Your task to perform on an android device: Open the stopwatch Image 0: 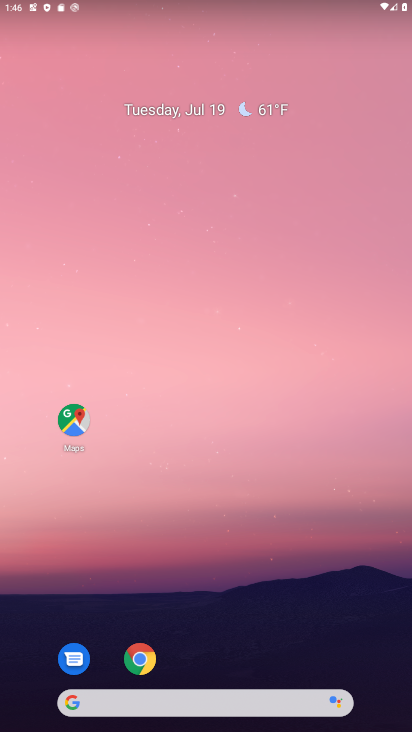
Step 0: drag from (330, 645) to (218, 85)
Your task to perform on an android device: Open the stopwatch Image 1: 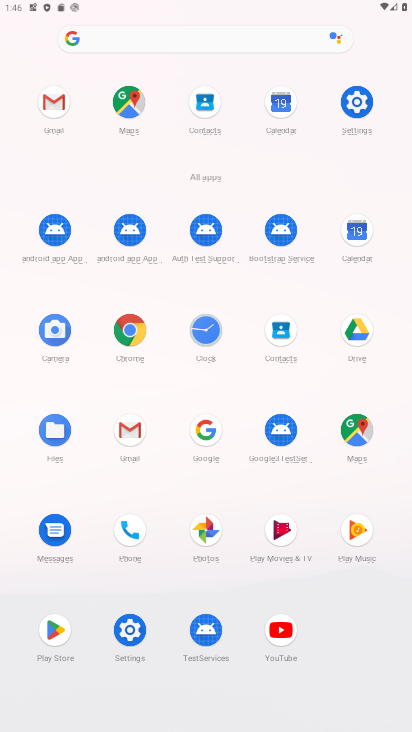
Step 1: click (207, 331)
Your task to perform on an android device: Open the stopwatch Image 2: 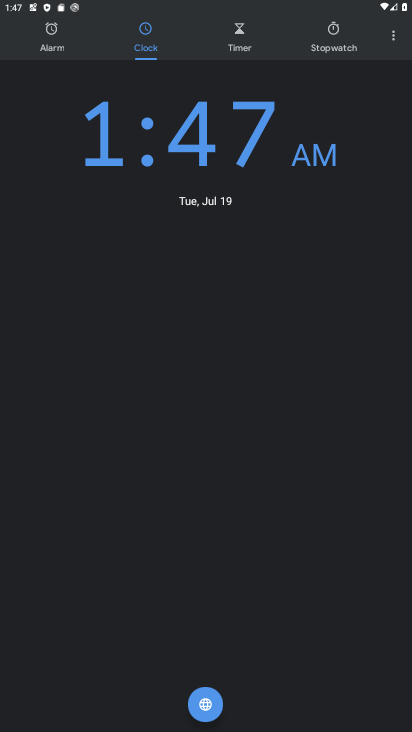
Step 2: click (342, 26)
Your task to perform on an android device: Open the stopwatch Image 3: 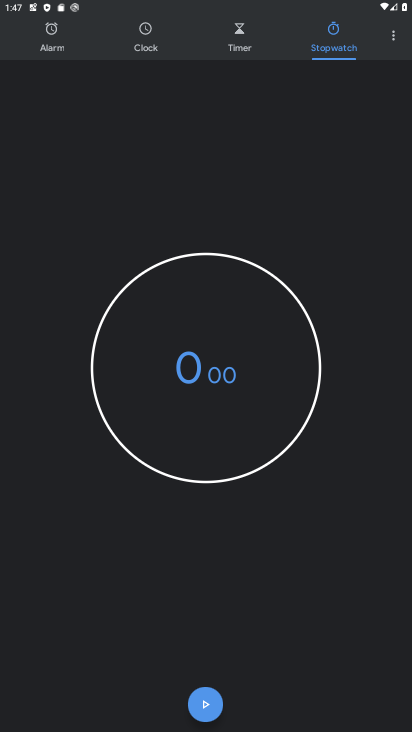
Step 3: task complete